Your task to perform on an android device: Go to settings Image 0: 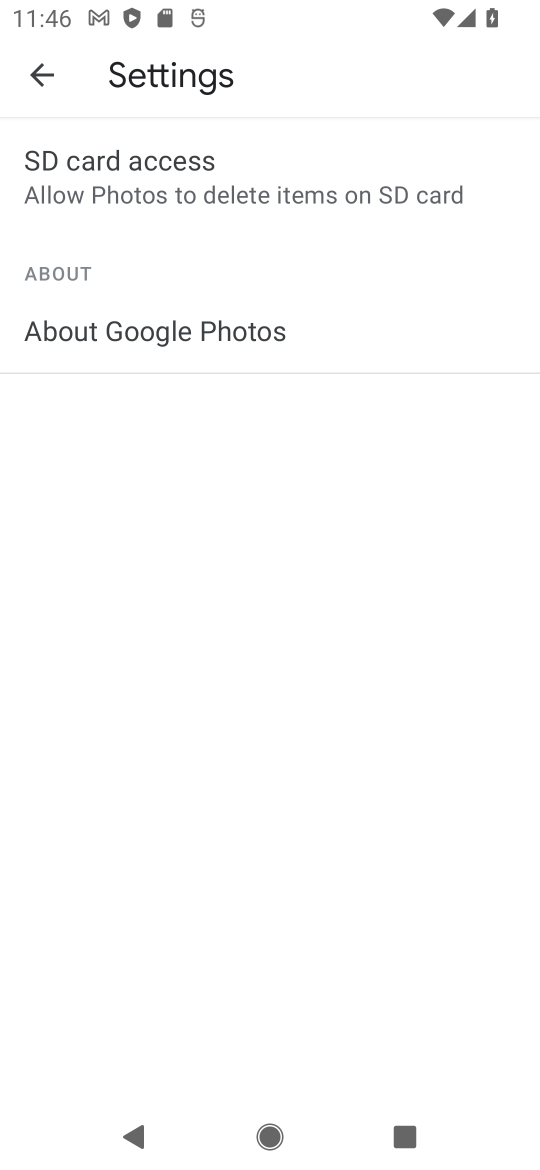
Step 0: task complete